Your task to perform on an android device: open app "Roku - Official Remote Control" Image 0: 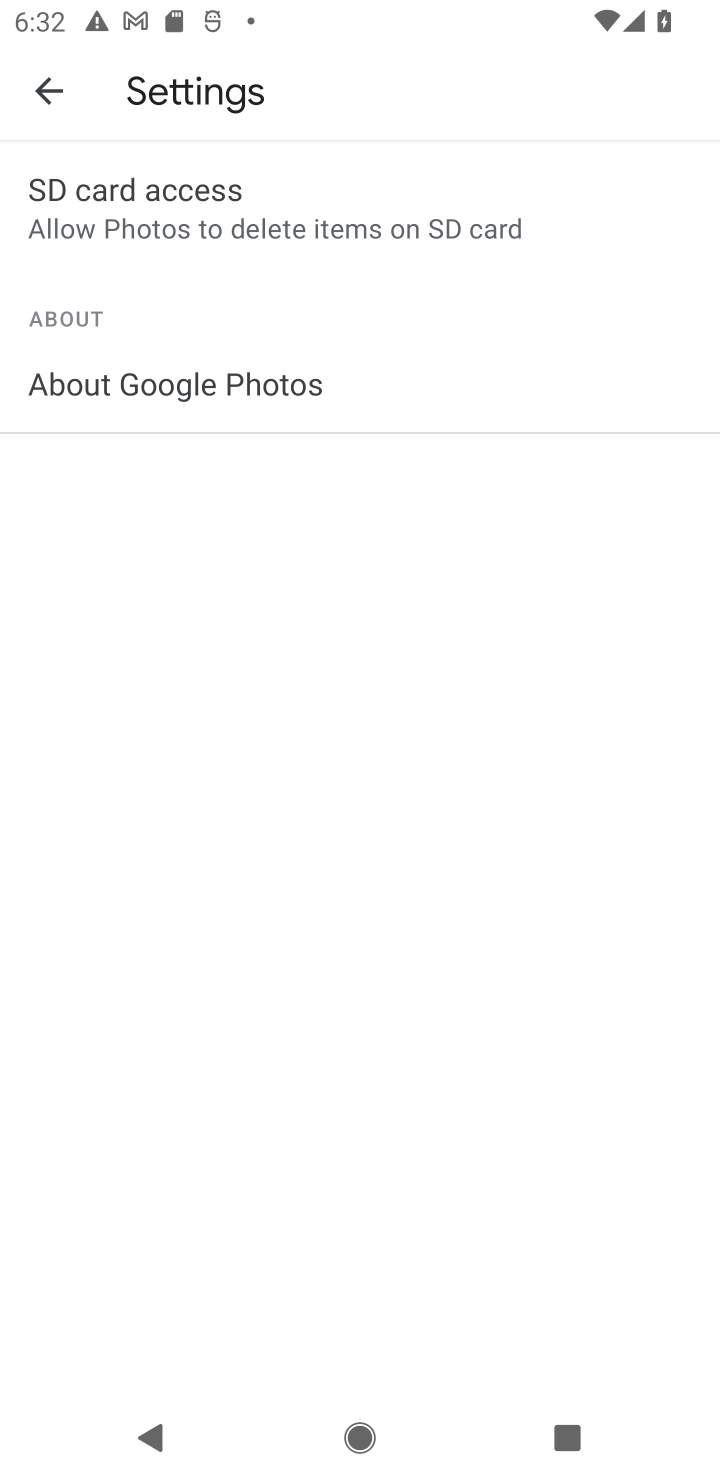
Step 0: press home button
Your task to perform on an android device: open app "Roku - Official Remote Control" Image 1: 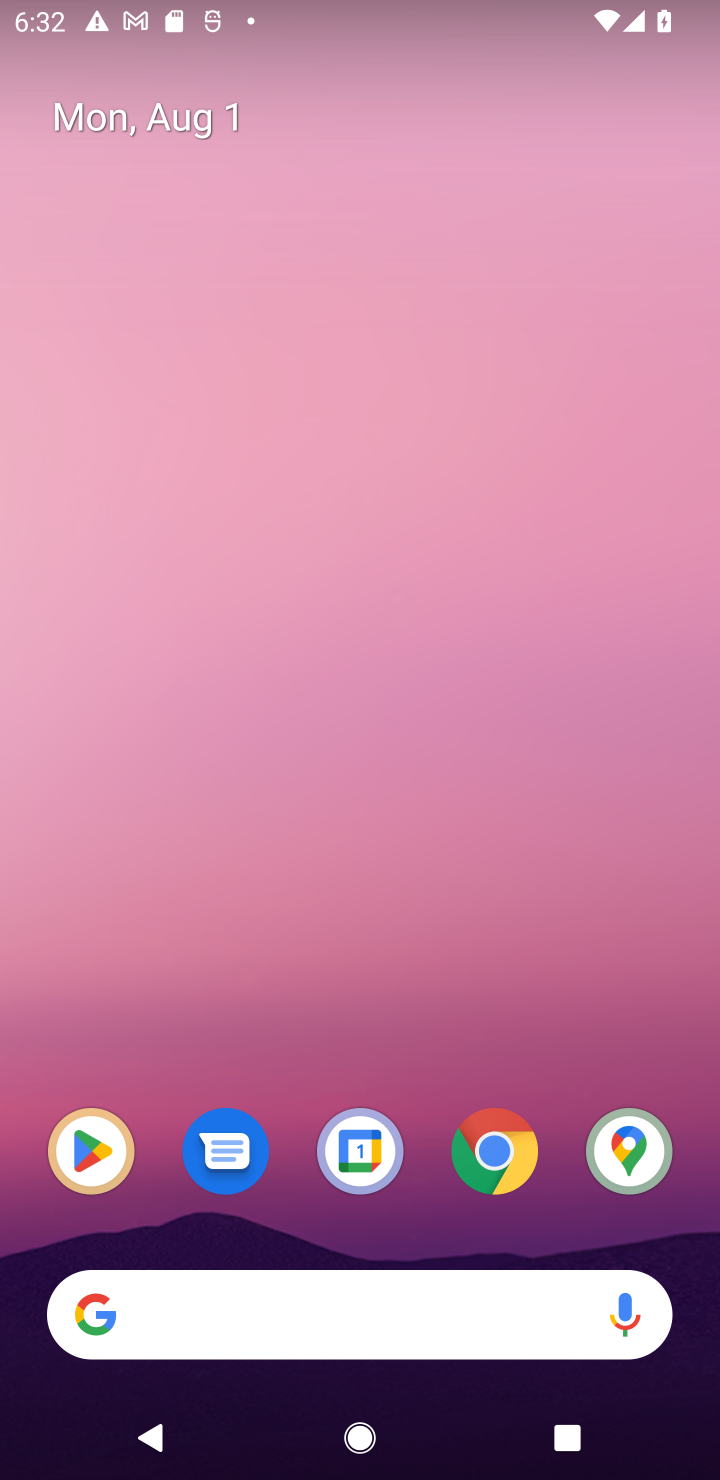
Step 1: drag from (431, 1320) to (402, 518)
Your task to perform on an android device: open app "Roku - Official Remote Control" Image 2: 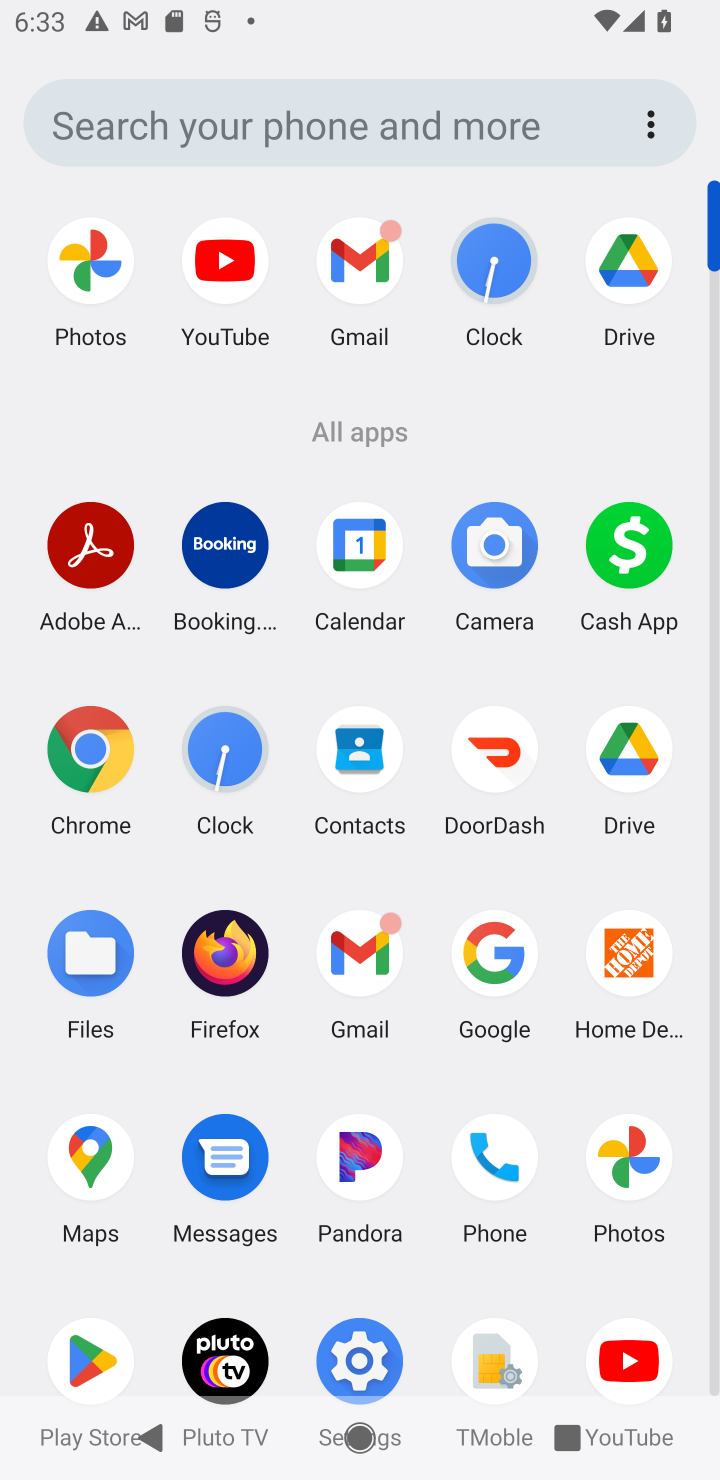
Step 2: drag from (456, 1289) to (448, 578)
Your task to perform on an android device: open app "Roku - Official Remote Control" Image 3: 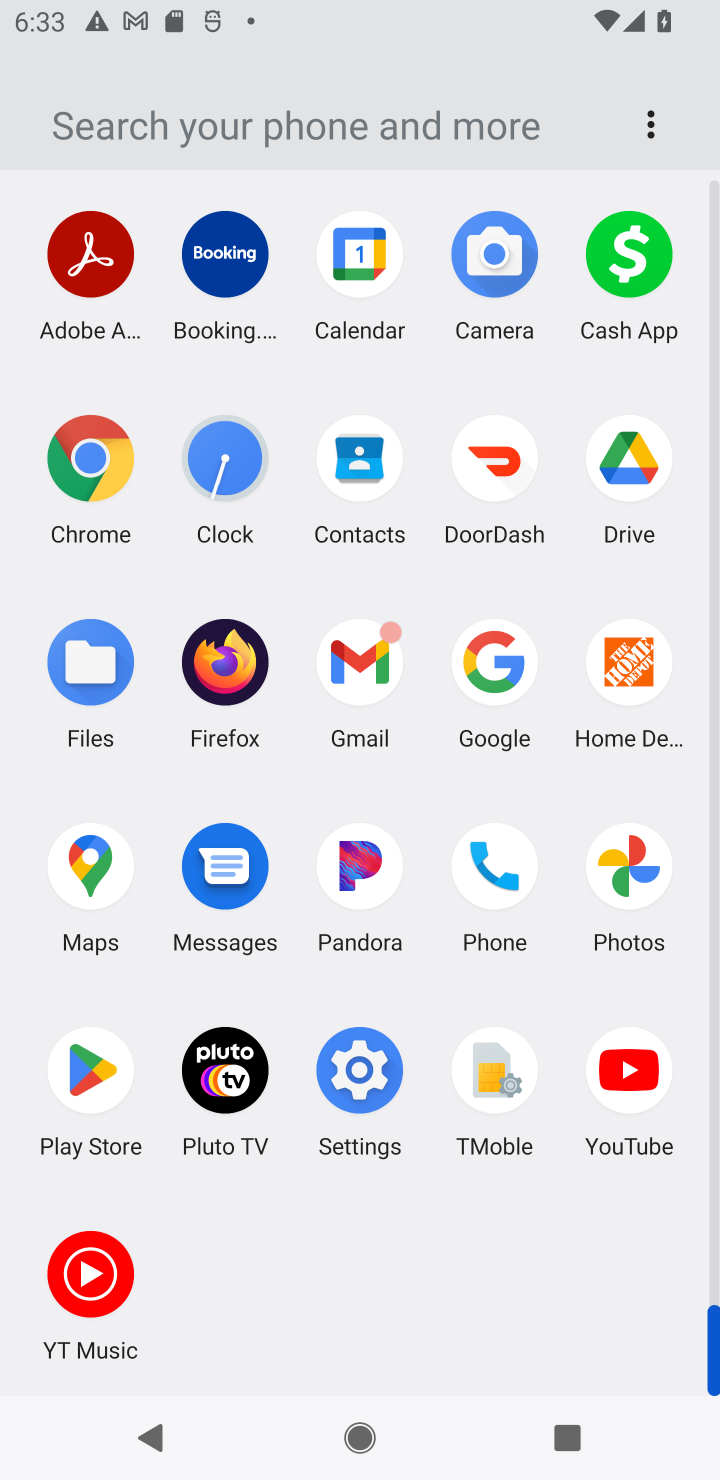
Step 3: click (83, 1072)
Your task to perform on an android device: open app "Roku - Official Remote Control" Image 4: 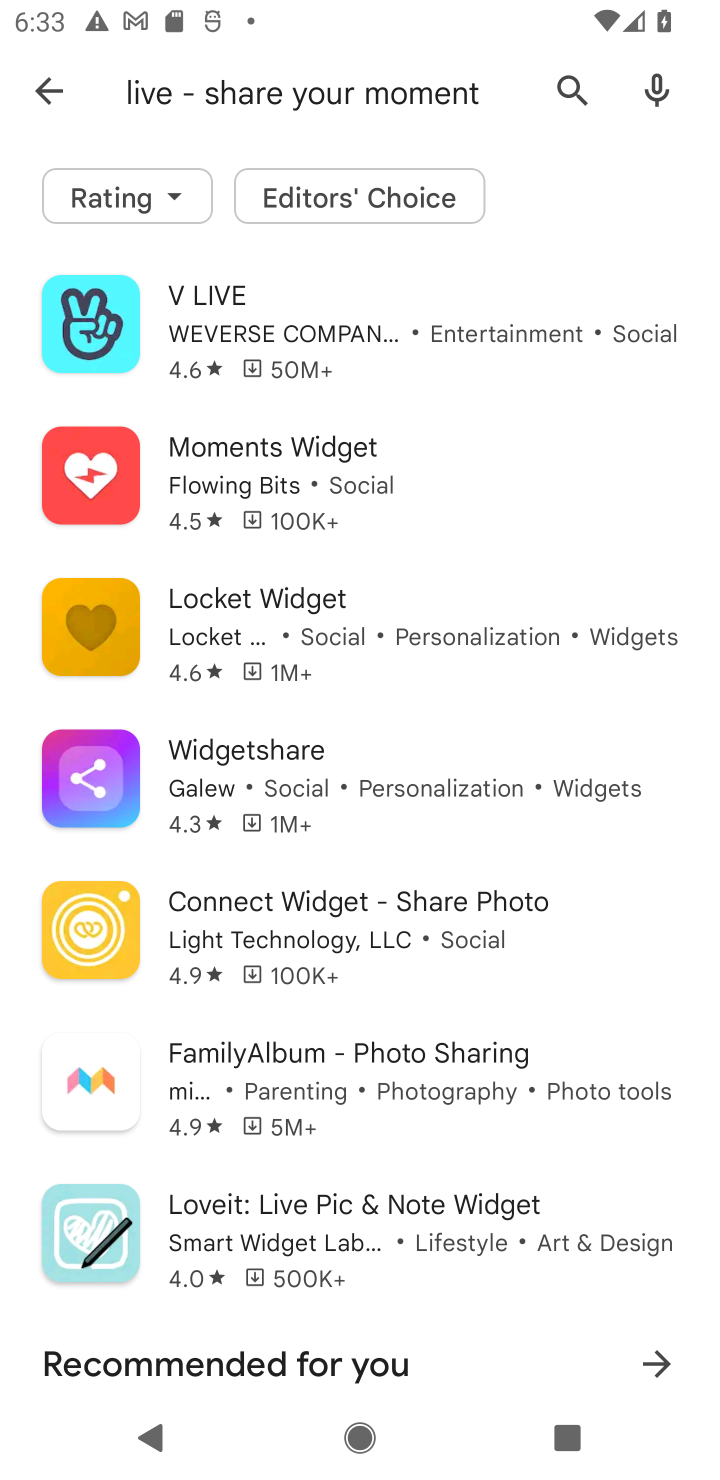
Step 4: click (572, 88)
Your task to perform on an android device: open app "Roku - Official Remote Control" Image 5: 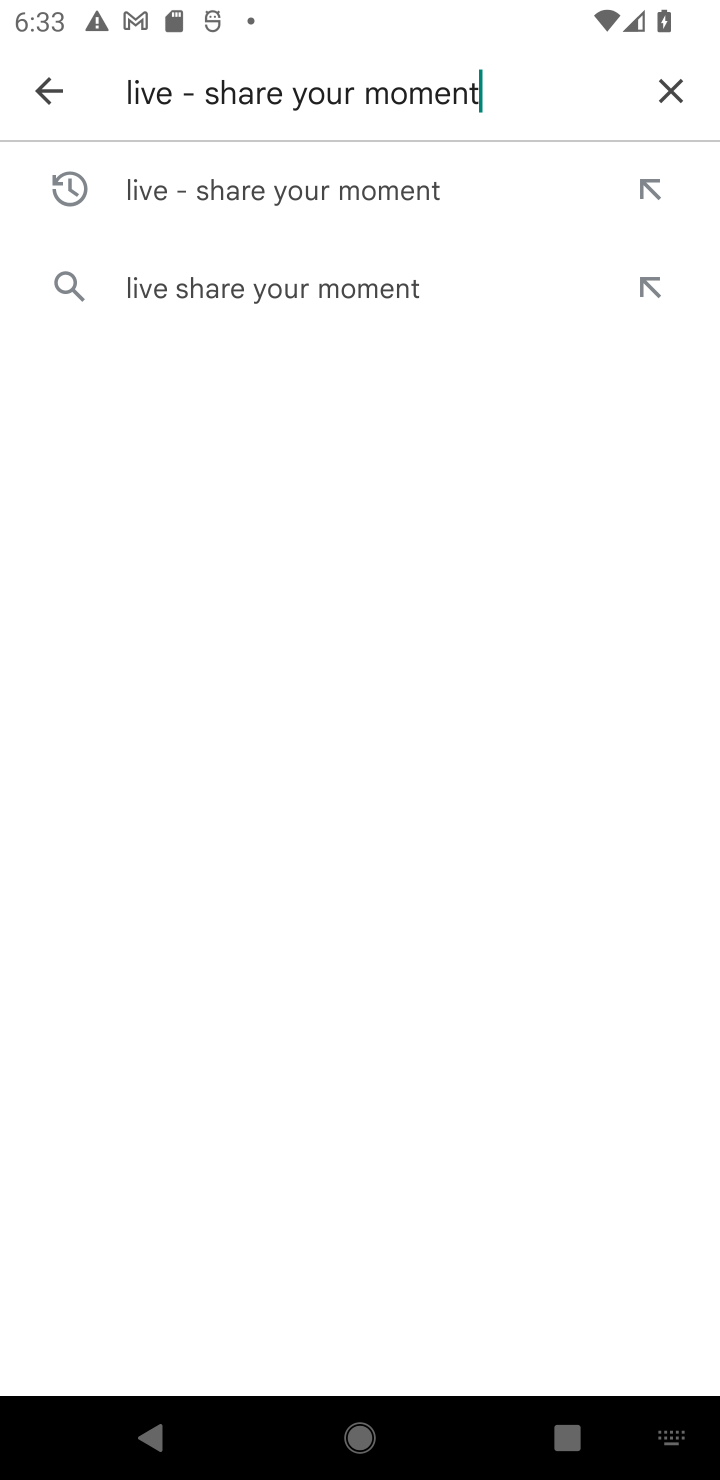
Step 5: click (669, 84)
Your task to perform on an android device: open app "Roku - Official Remote Control" Image 6: 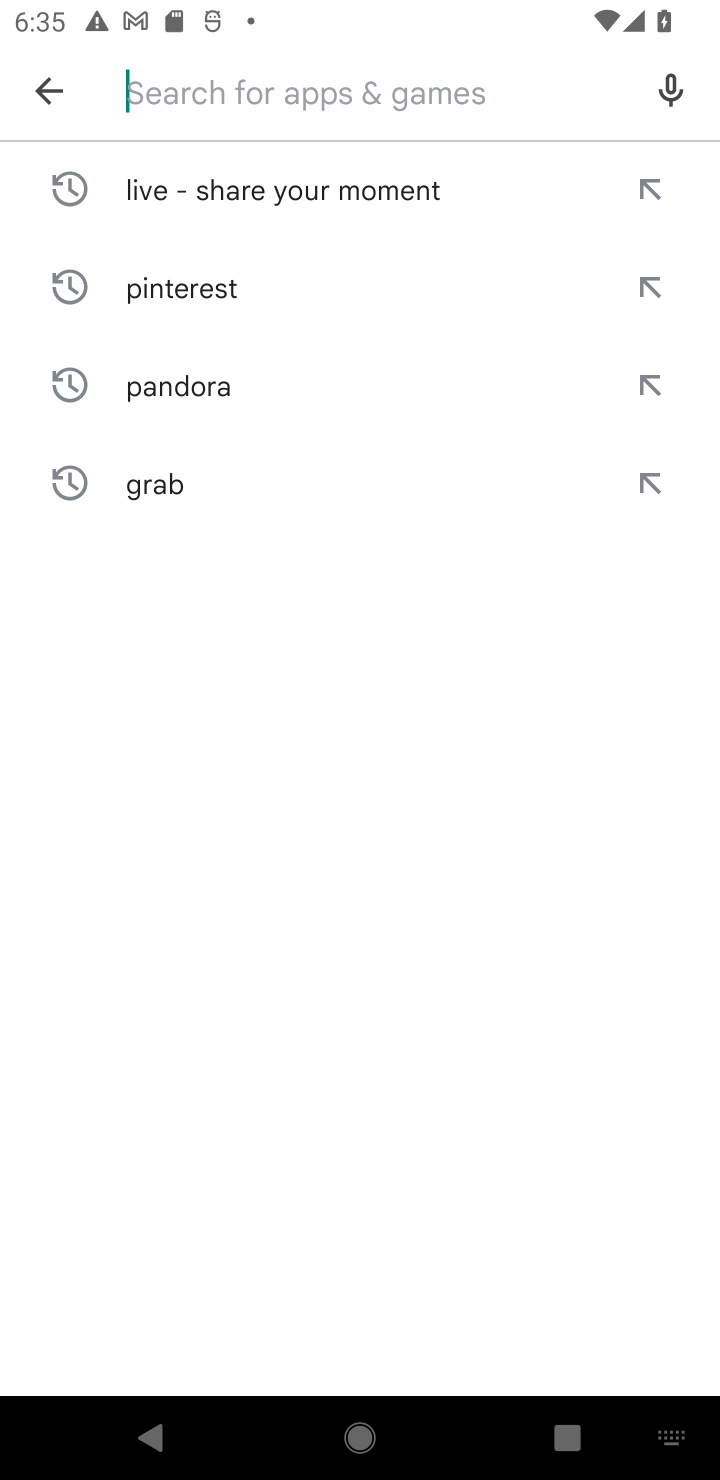
Step 6: type "roku - official remote control"
Your task to perform on an android device: open app "Roku - Official Remote Control" Image 7: 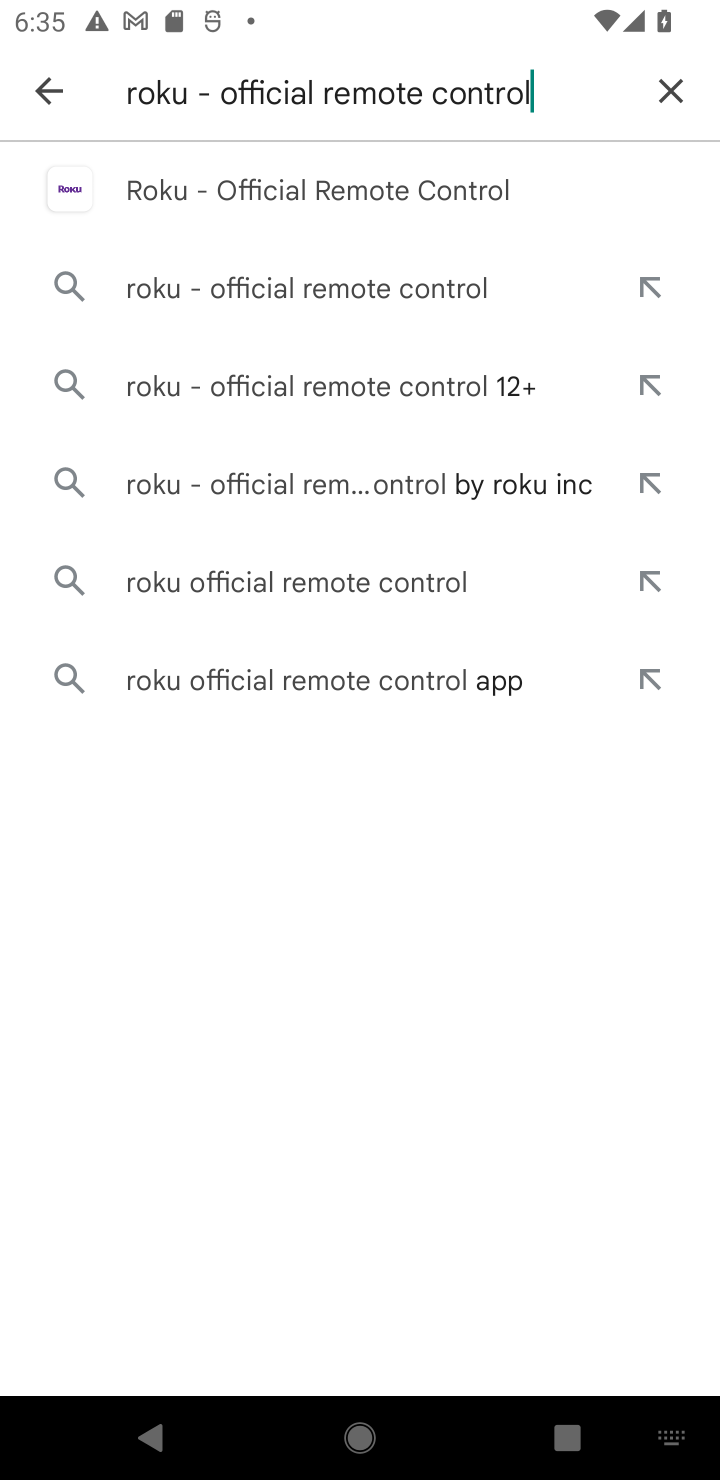
Step 7: click (476, 201)
Your task to perform on an android device: open app "Roku - Official Remote Control" Image 8: 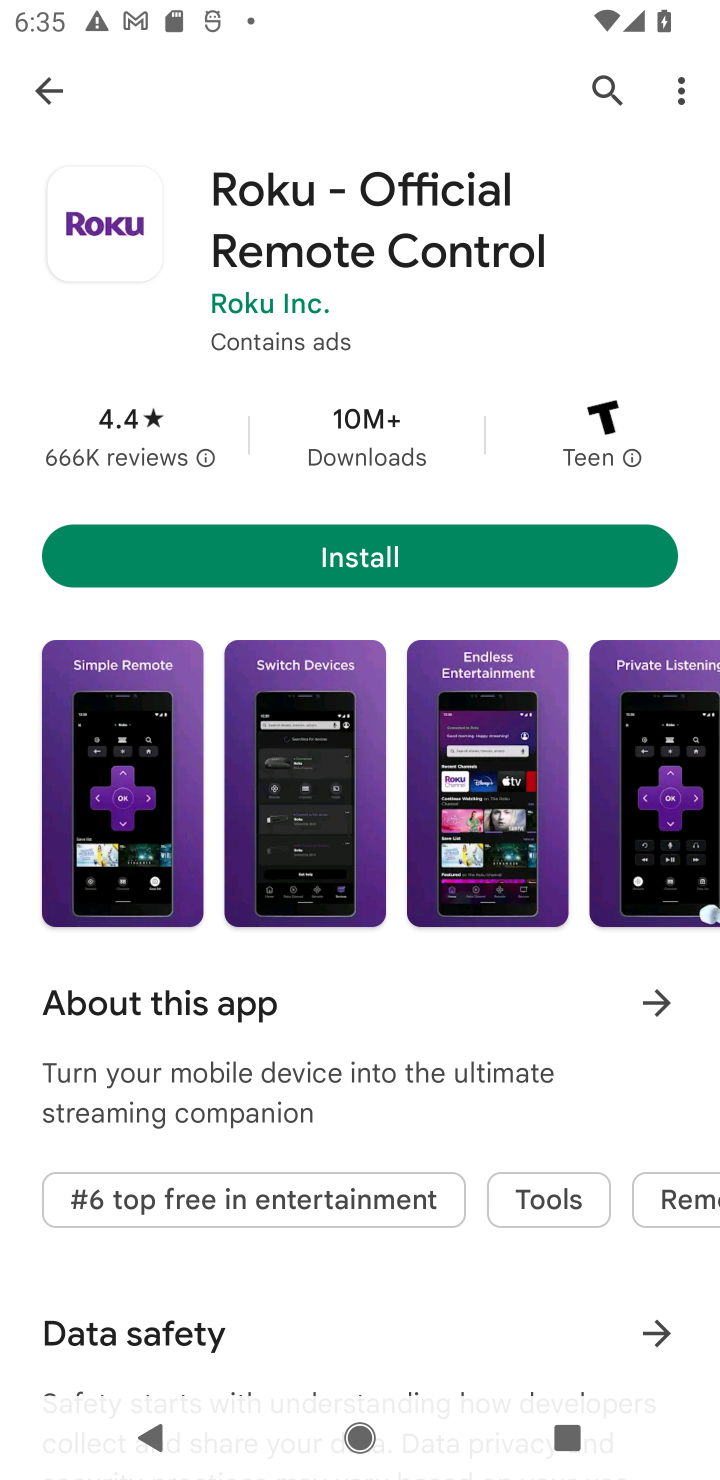
Step 8: task complete